Your task to perform on an android device: What's the weather going to be tomorrow? Image 0: 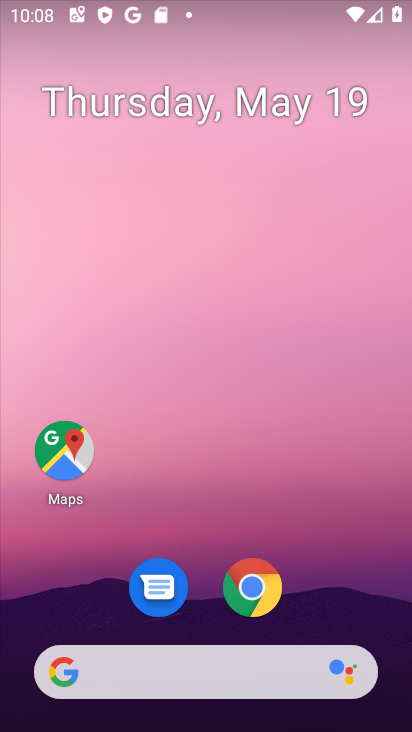
Step 0: drag from (356, 610) to (240, 1)
Your task to perform on an android device: What's the weather going to be tomorrow? Image 1: 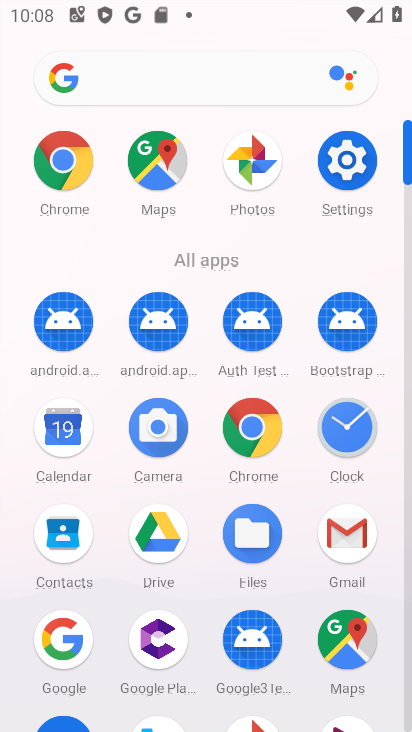
Step 1: click (78, 167)
Your task to perform on an android device: What's the weather going to be tomorrow? Image 2: 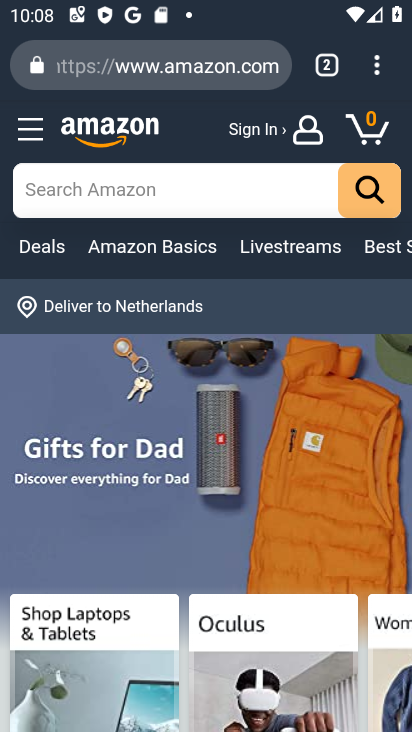
Step 2: click (240, 59)
Your task to perform on an android device: What's the weather going to be tomorrow? Image 3: 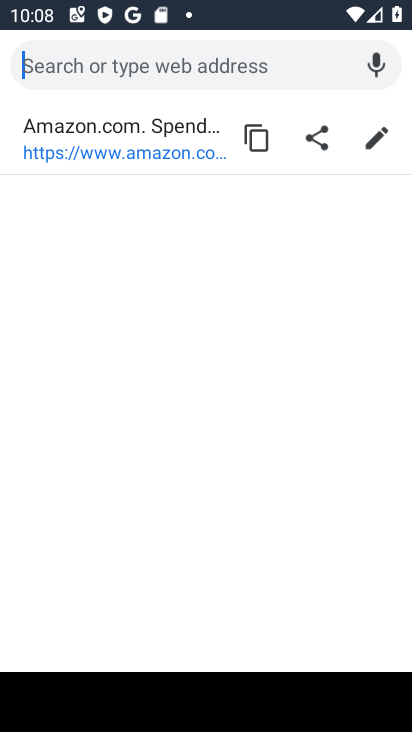
Step 3: type "What's the weather going to be tomorrow?"
Your task to perform on an android device: What's the weather going to be tomorrow? Image 4: 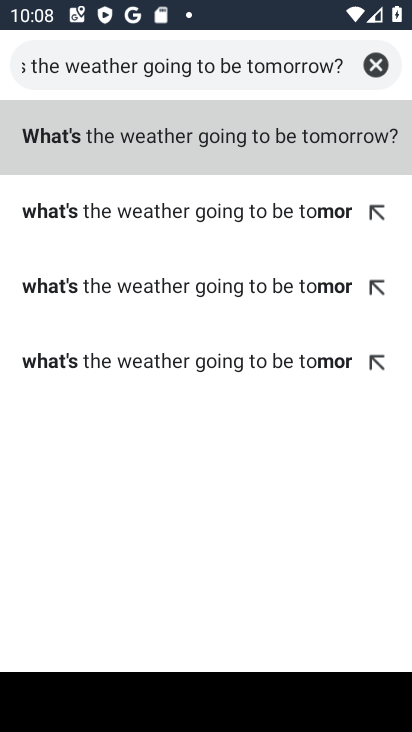
Step 4: click (219, 150)
Your task to perform on an android device: What's the weather going to be tomorrow? Image 5: 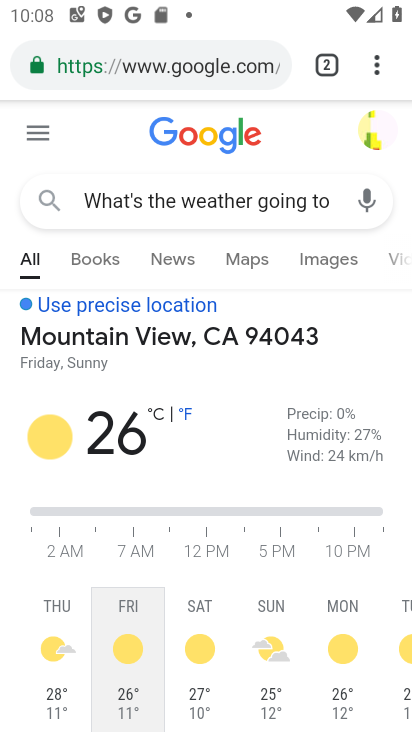
Step 5: click (203, 615)
Your task to perform on an android device: What's the weather going to be tomorrow? Image 6: 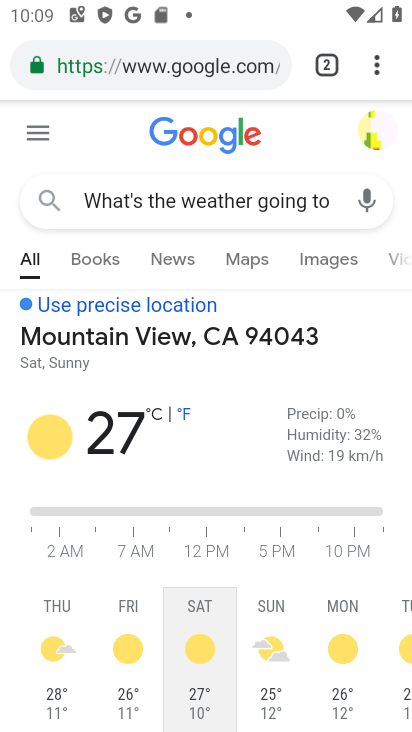
Step 6: task complete